Your task to perform on an android device: Go to display settings Image 0: 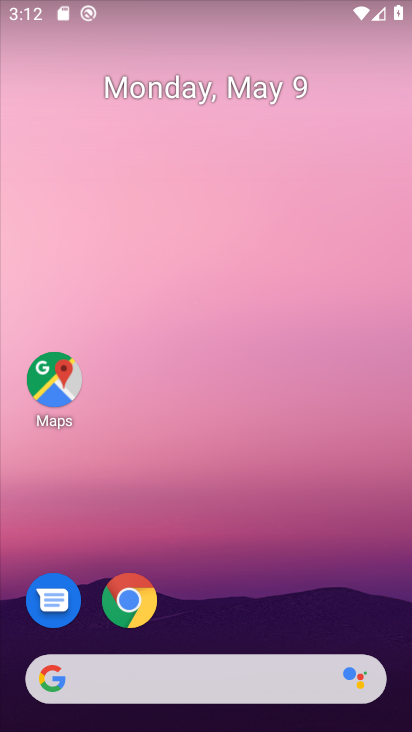
Step 0: drag from (309, 568) to (279, 171)
Your task to perform on an android device: Go to display settings Image 1: 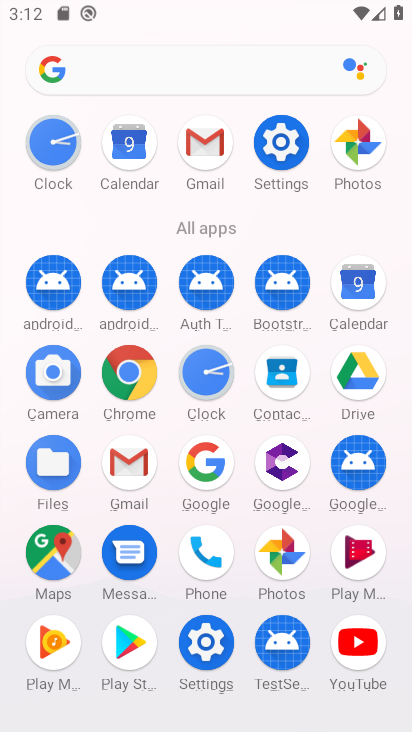
Step 1: click (290, 154)
Your task to perform on an android device: Go to display settings Image 2: 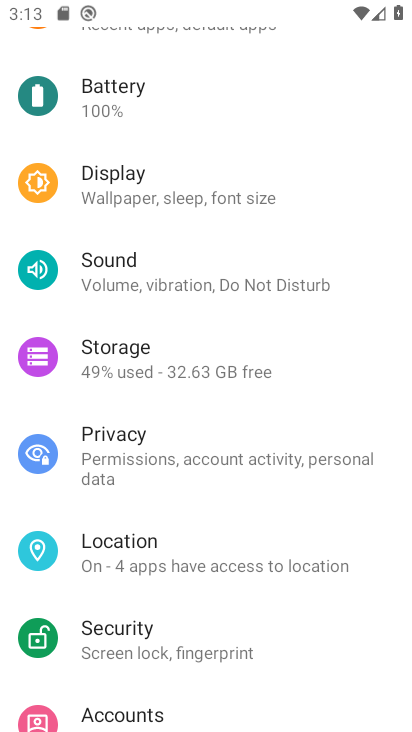
Step 2: click (186, 213)
Your task to perform on an android device: Go to display settings Image 3: 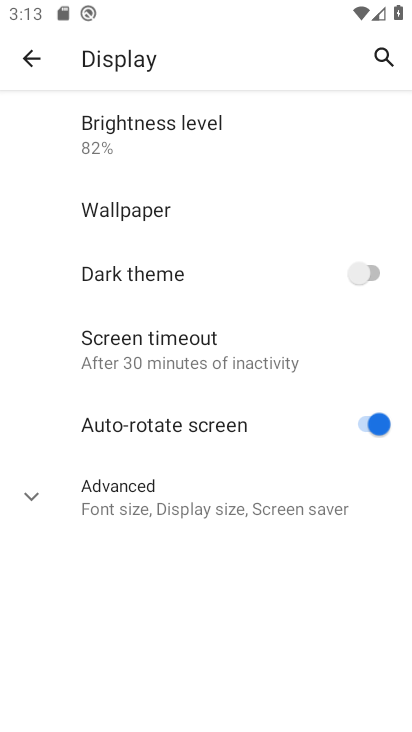
Step 3: task complete